Your task to perform on an android device: see tabs open on other devices in the chrome app Image 0: 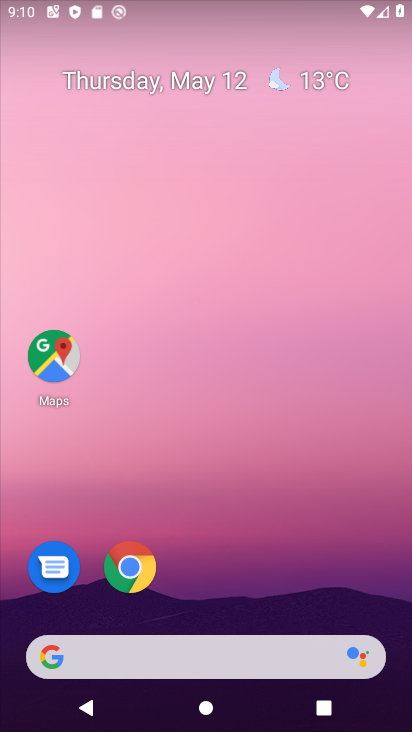
Step 0: click (128, 575)
Your task to perform on an android device: see tabs open on other devices in the chrome app Image 1: 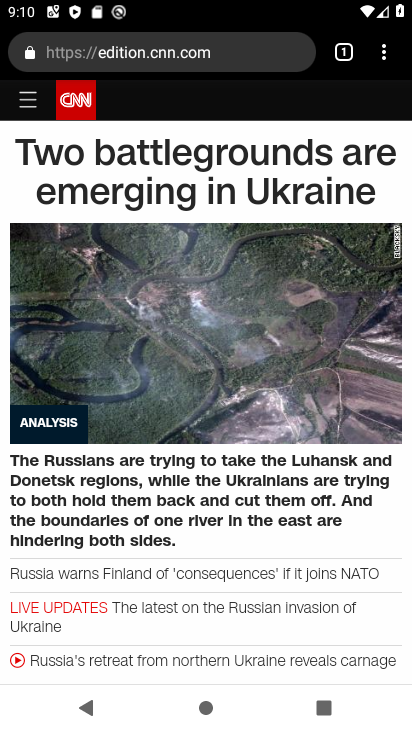
Step 1: click (389, 50)
Your task to perform on an android device: see tabs open on other devices in the chrome app Image 2: 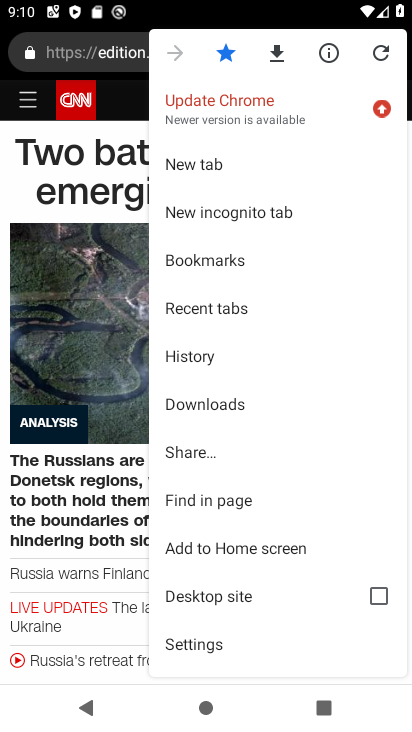
Step 2: click (255, 306)
Your task to perform on an android device: see tabs open on other devices in the chrome app Image 3: 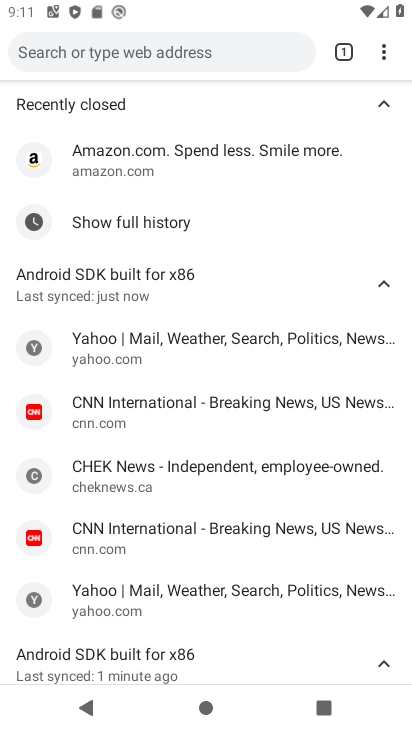
Step 3: task complete